Your task to perform on an android device: check the backup settings in the google photos Image 0: 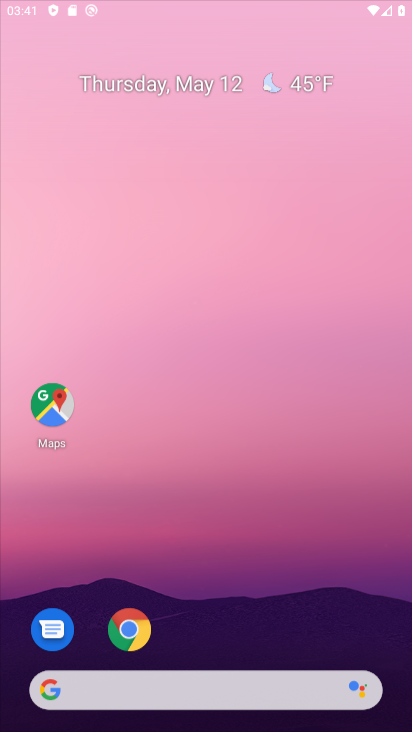
Step 0: click (333, 62)
Your task to perform on an android device: check the backup settings in the google photos Image 1: 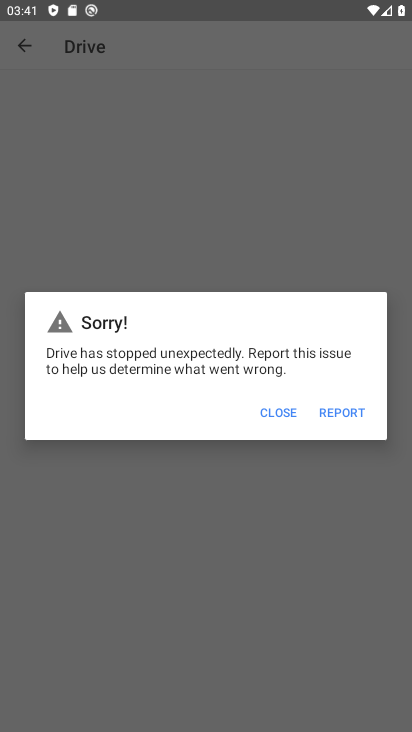
Step 1: drag from (174, 616) to (237, 285)
Your task to perform on an android device: check the backup settings in the google photos Image 2: 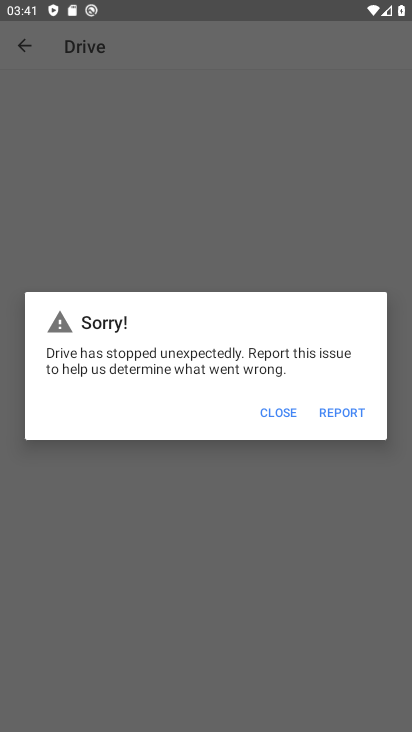
Step 2: click (297, 409)
Your task to perform on an android device: check the backup settings in the google photos Image 3: 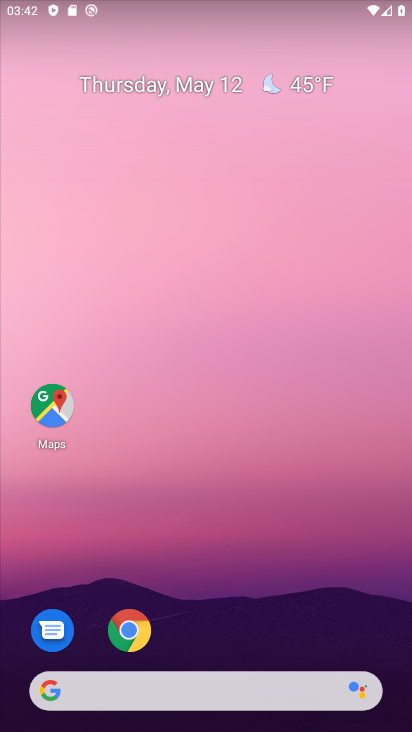
Step 3: drag from (198, 638) to (302, 203)
Your task to perform on an android device: check the backup settings in the google photos Image 4: 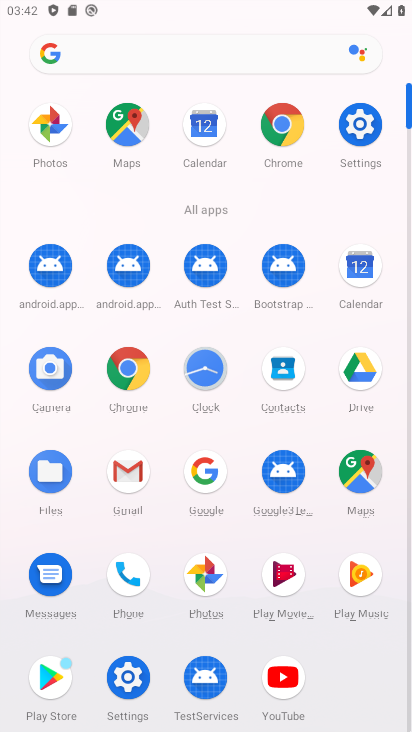
Step 4: click (206, 587)
Your task to perform on an android device: check the backup settings in the google photos Image 5: 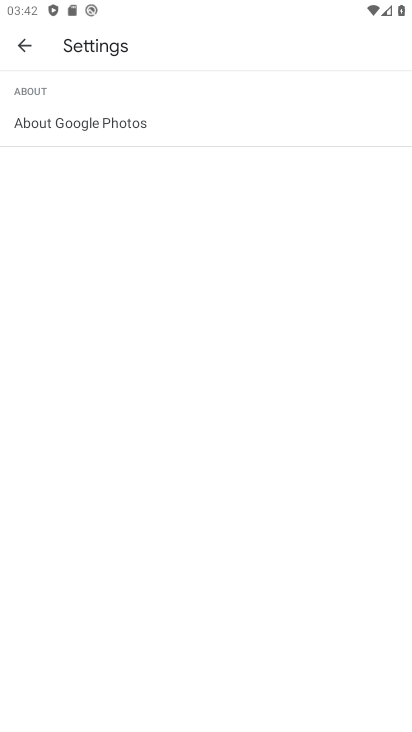
Step 5: click (34, 39)
Your task to perform on an android device: check the backup settings in the google photos Image 6: 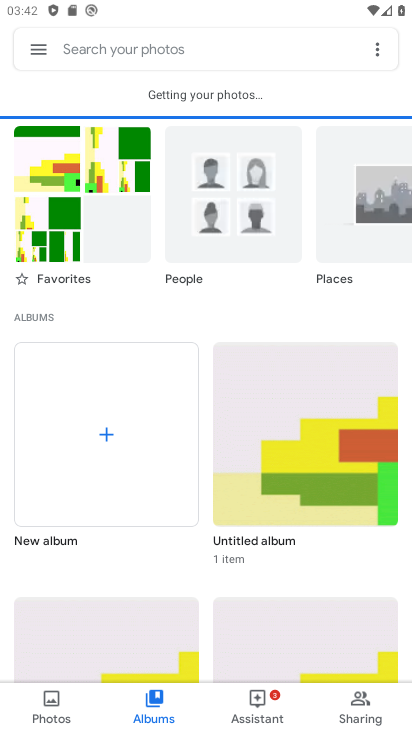
Step 6: click (34, 37)
Your task to perform on an android device: check the backup settings in the google photos Image 7: 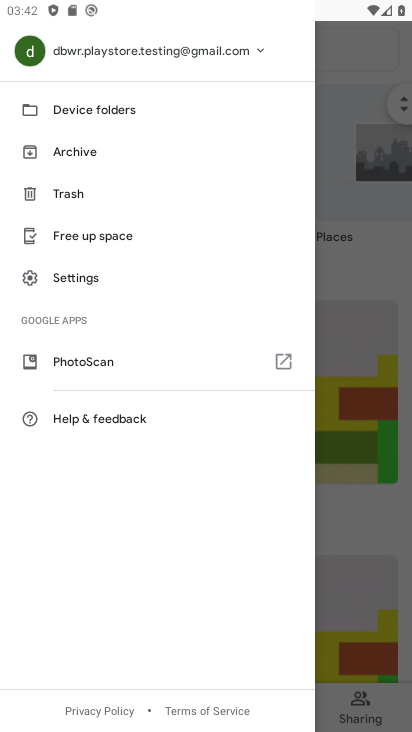
Step 7: click (97, 279)
Your task to perform on an android device: check the backup settings in the google photos Image 8: 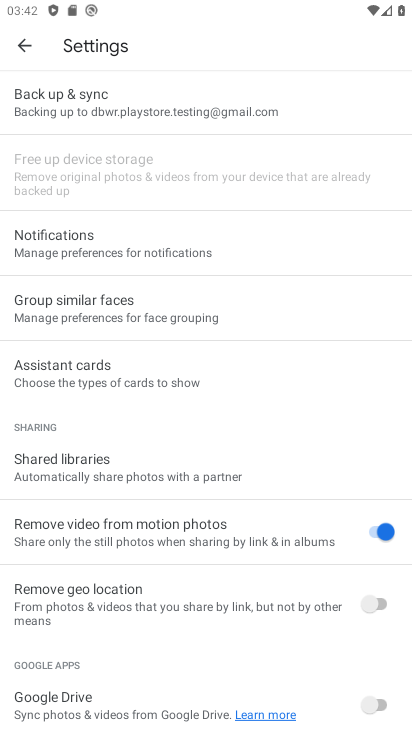
Step 8: click (173, 83)
Your task to perform on an android device: check the backup settings in the google photos Image 9: 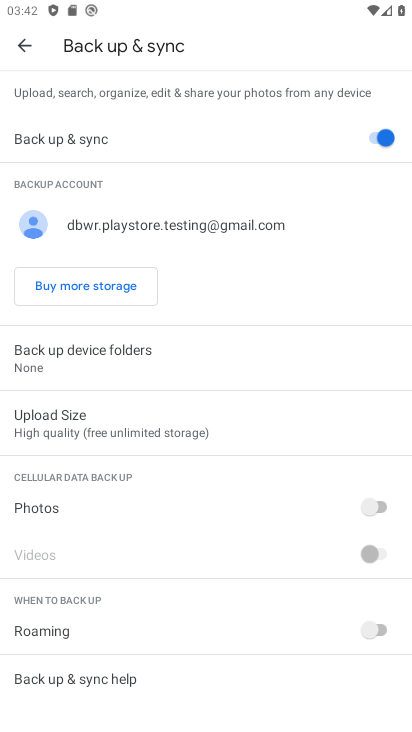
Step 9: task complete